Your task to perform on an android device: find which apps use the phone's location Image 0: 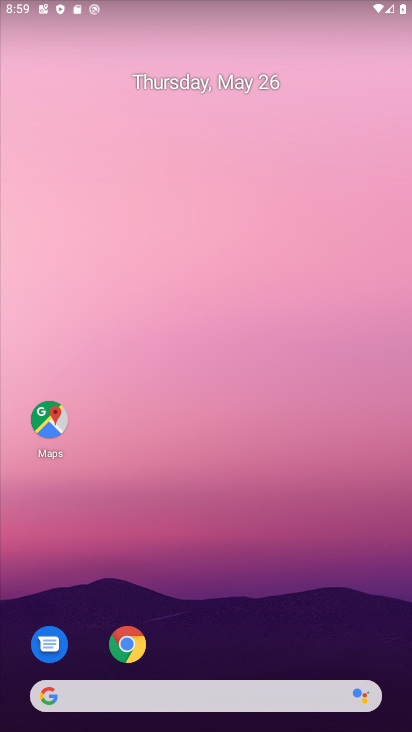
Step 0: drag from (255, 629) to (328, 30)
Your task to perform on an android device: find which apps use the phone's location Image 1: 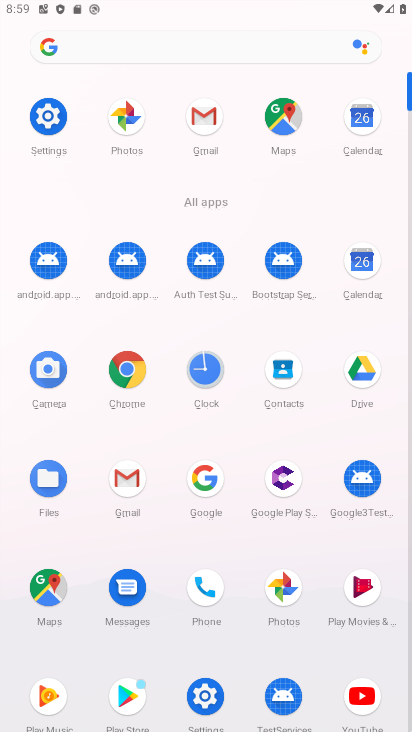
Step 1: click (53, 110)
Your task to perform on an android device: find which apps use the phone's location Image 2: 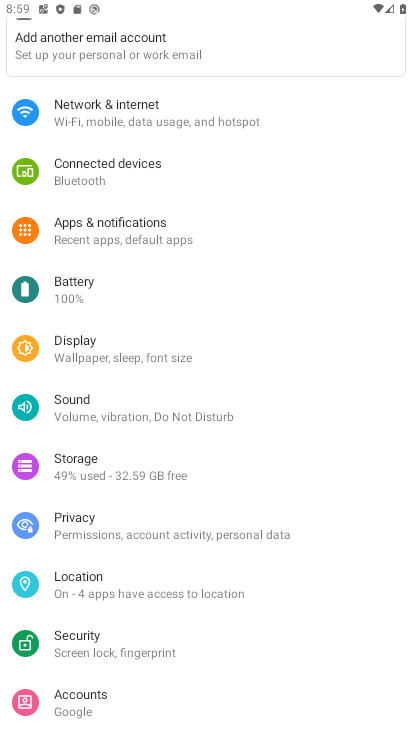
Step 2: click (108, 592)
Your task to perform on an android device: find which apps use the phone's location Image 3: 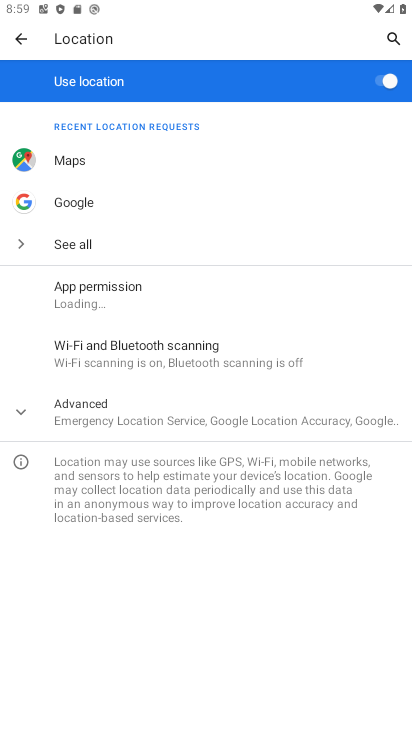
Step 3: click (91, 293)
Your task to perform on an android device: find which apps use the phone's location Image 4: 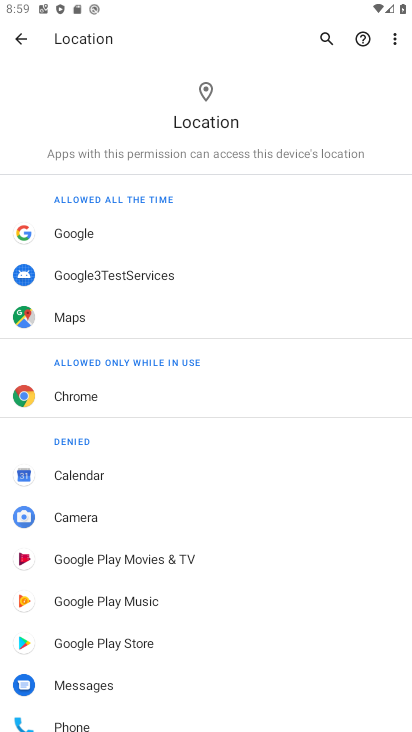
Step 4: task complete